Your task to perform on an android device: What is the news today? Image 0: 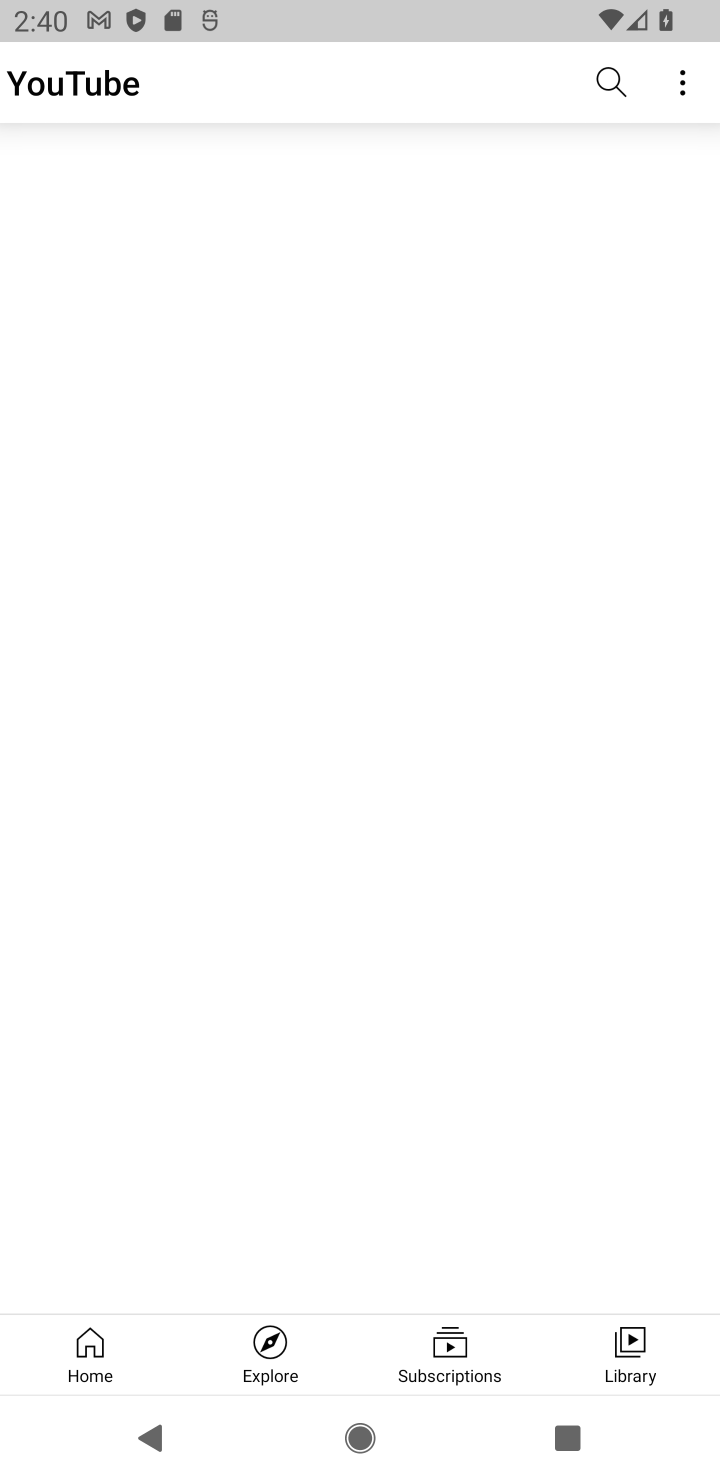
Step 0: press home button
Your task to perform on an android device: What is the news today? Image 1: 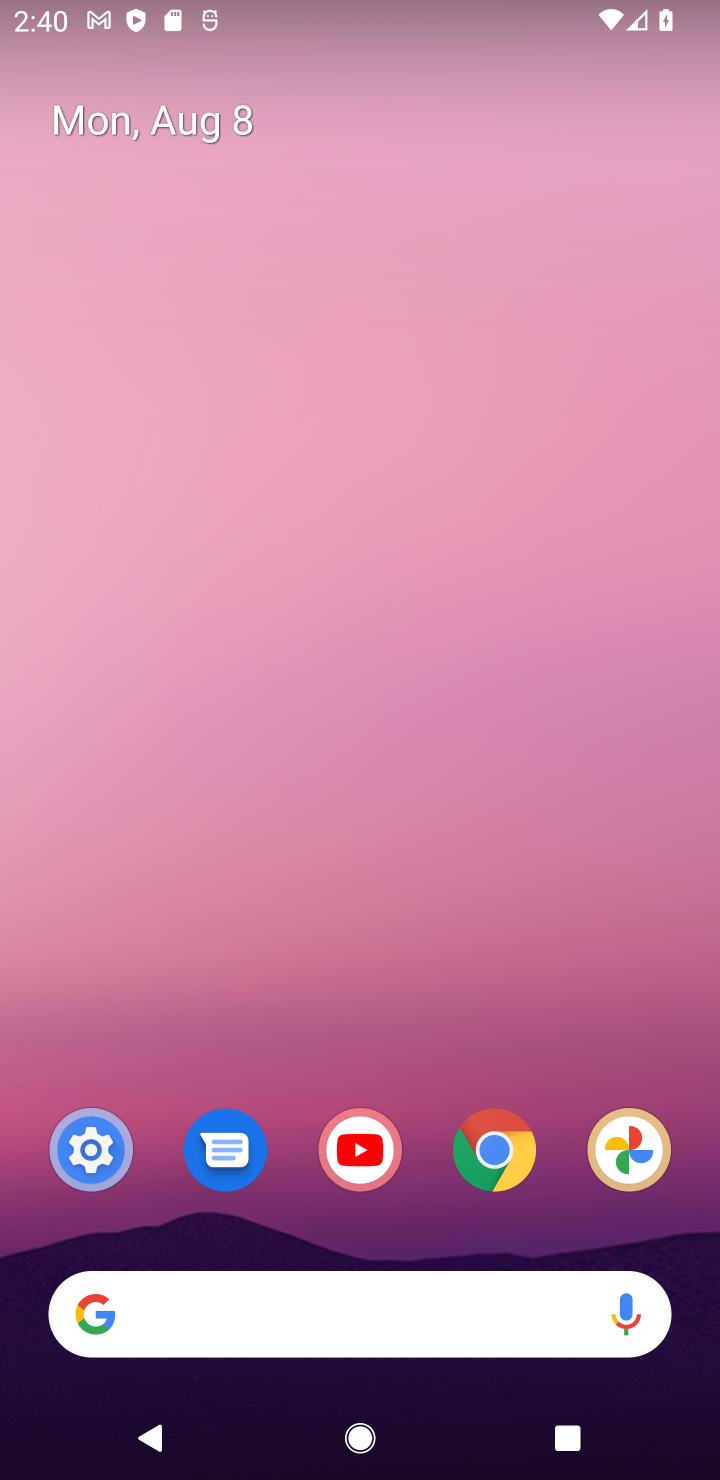
Step 1: click (331, 1279)
Your task to perform on an android device: What is the news today? Image 2: 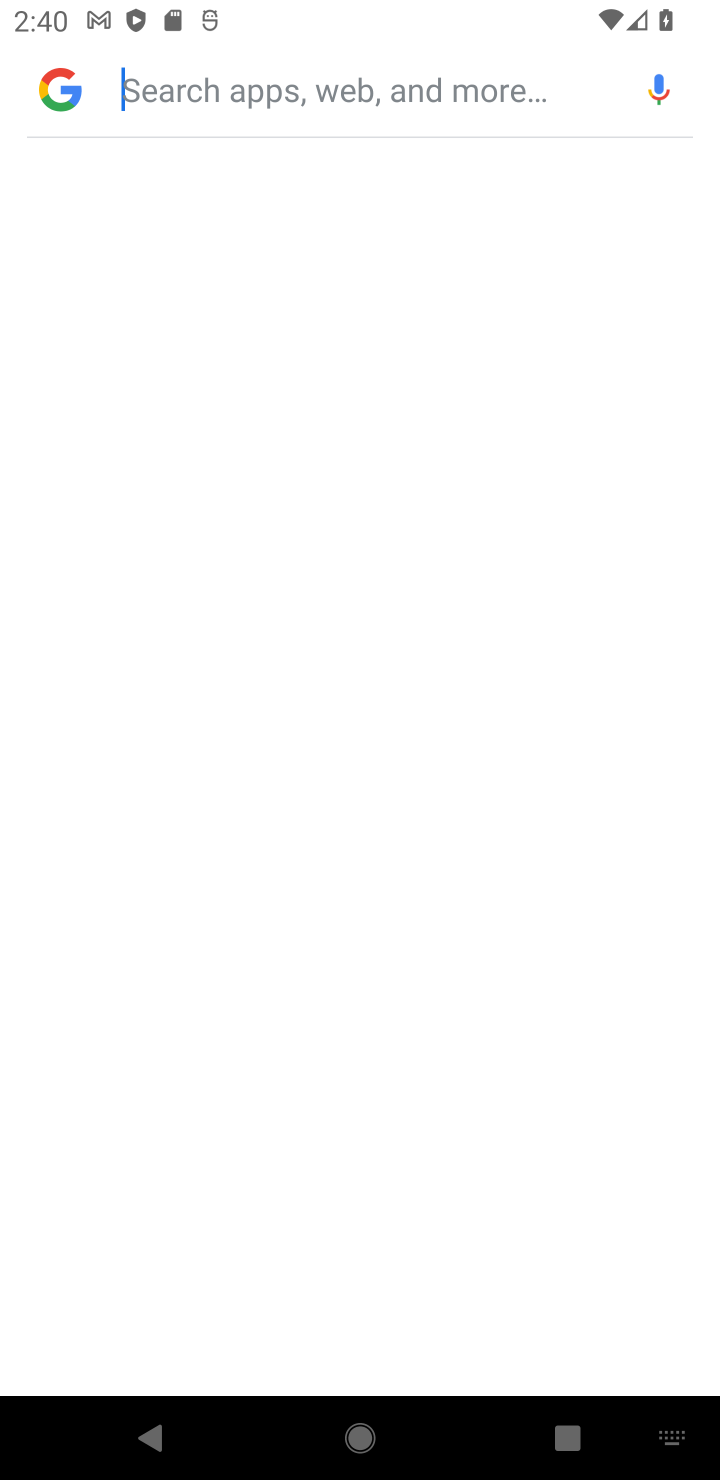
Step 2: type "news"
Your task to perform on an android device: What is the news today? Image 3: 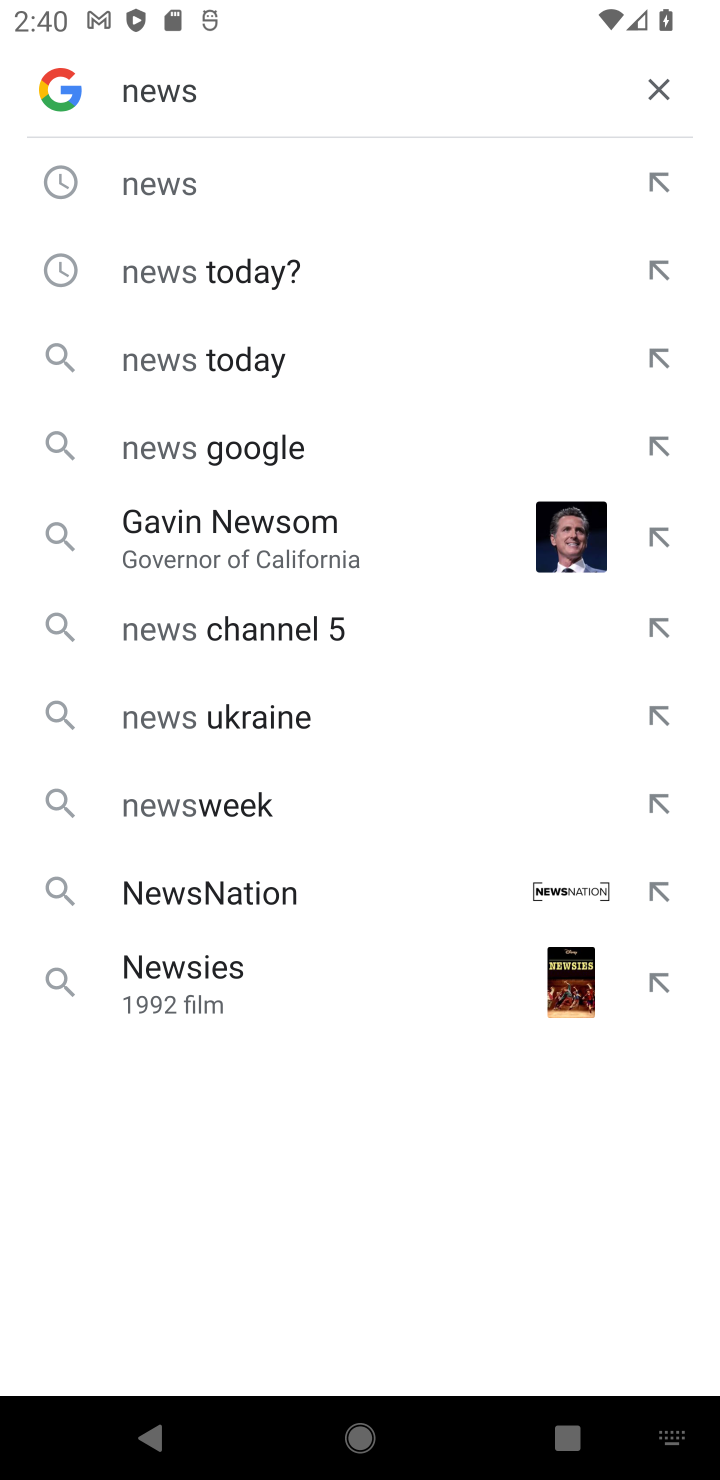
Step 3: click (176, 176)
Your task to perform on an android device: What is the news today? Image 4: 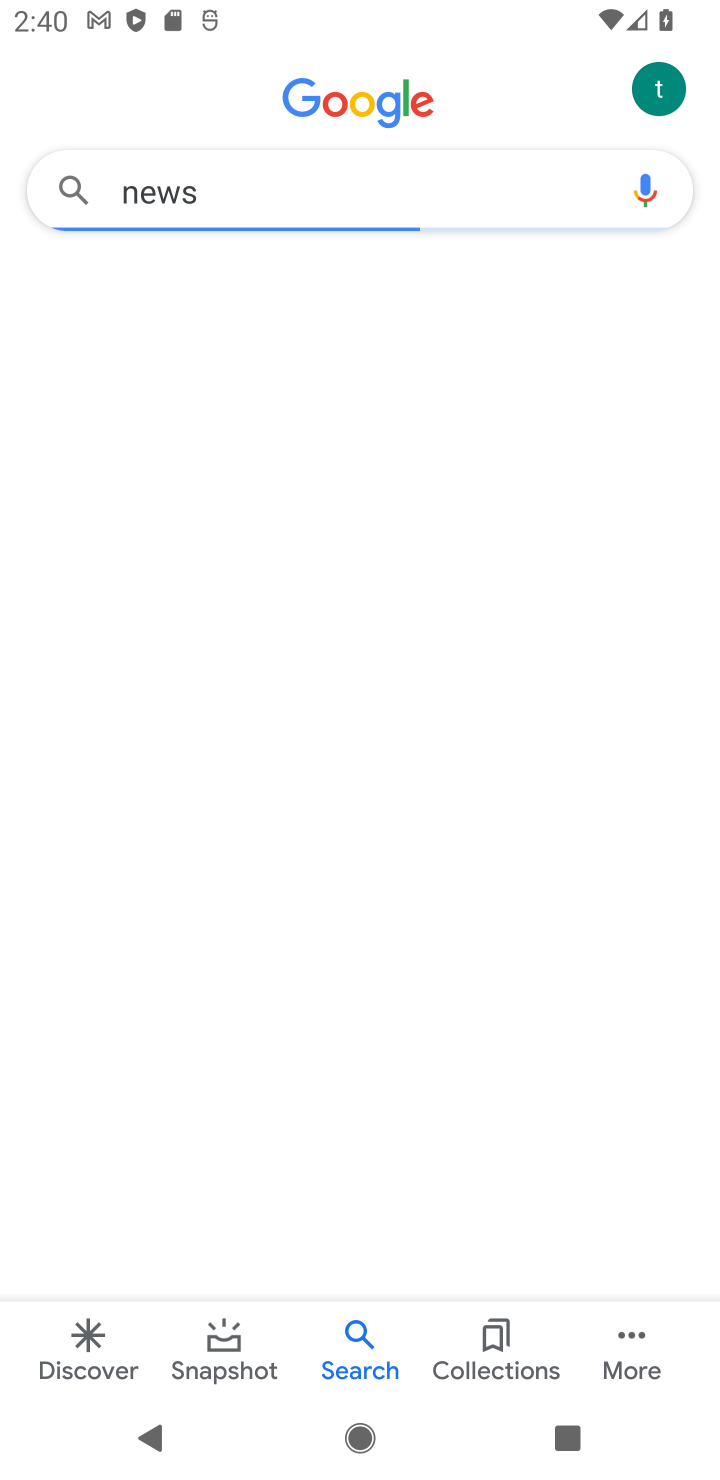
Step 4: task complete